Your task to perform on an android device: Show the shopping cart on costco.com. Search for logitech g910 on costco.com, select the first entry, and add it to the cart. Image 0: 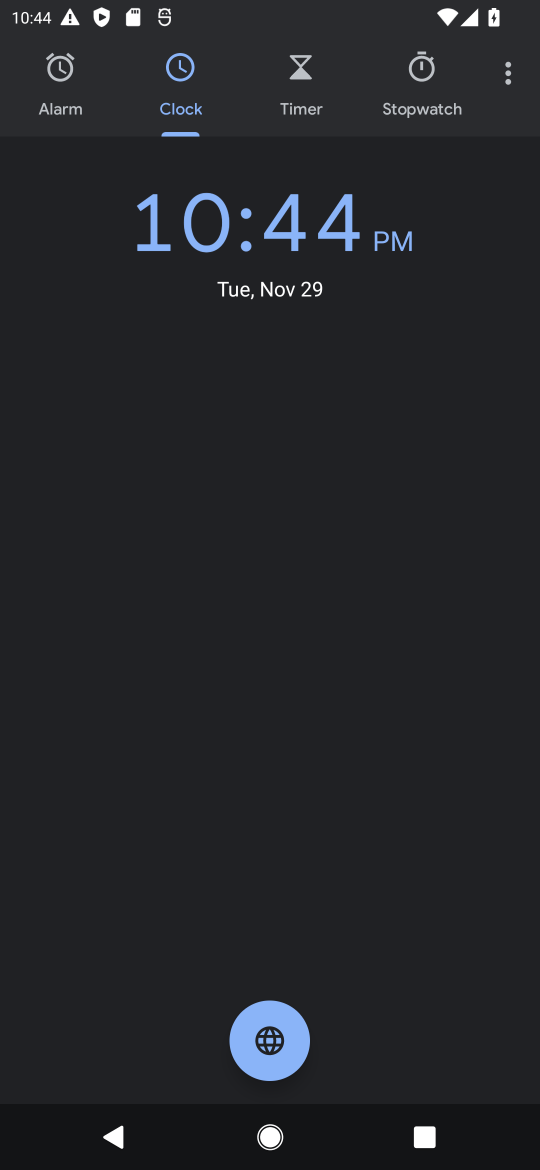
Step 0: press home button
Your task to perform on an android device: Show the shopping cart on costco.com. Search for logitech g910 on costco.com, select the first entry, and add it to the cart. Image 1: 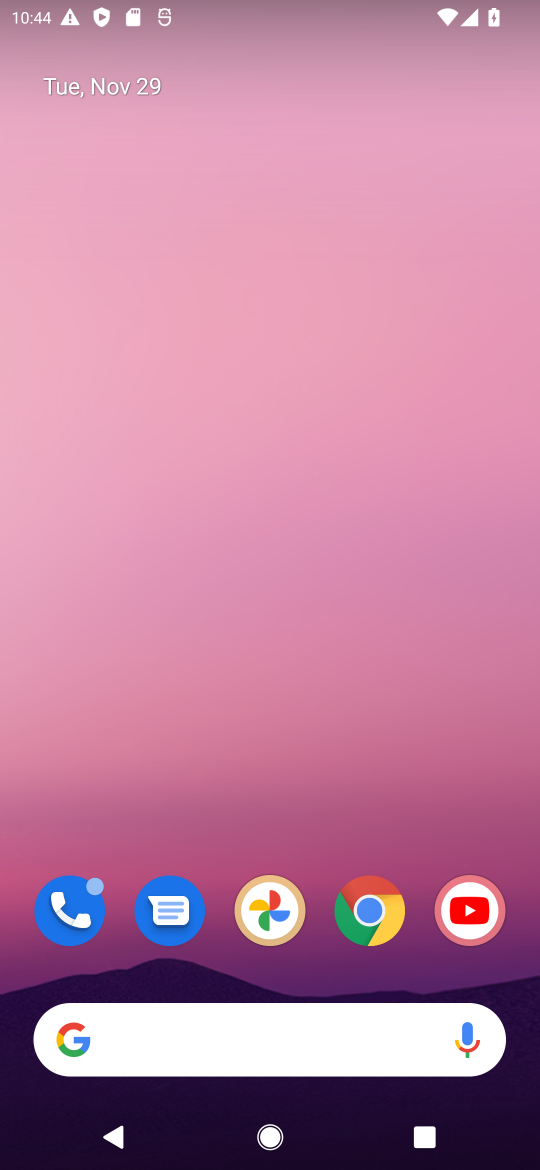
Step 1: click (379, 921)
Your task to perform on an android device: Show the shopping cart on costco.com. Search for logitech g910 on costco.com, select the first entry, and add it to the cart. Image 2: 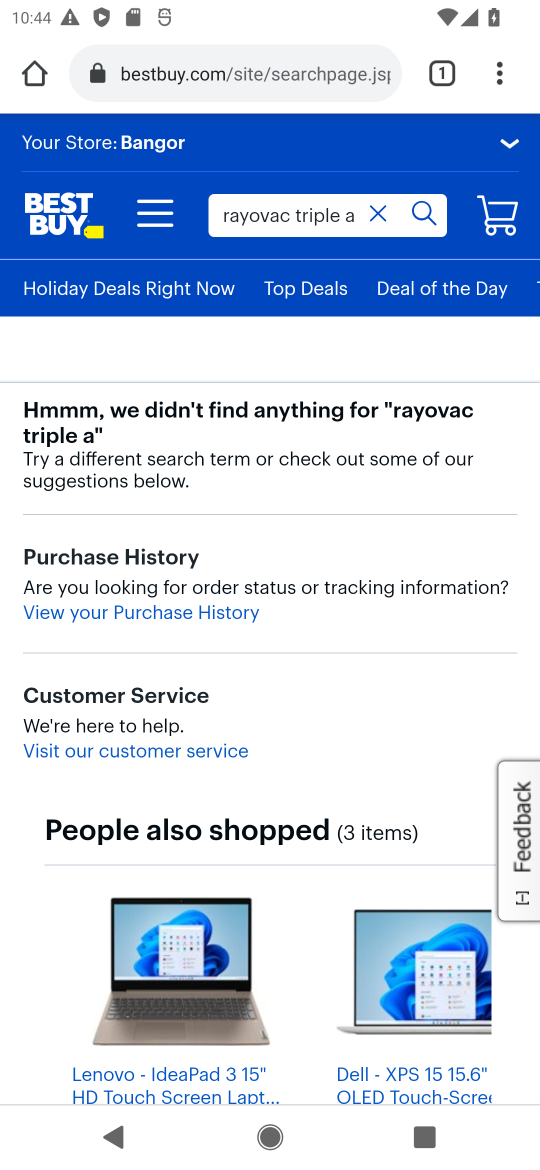
Step 2: click (217, 80)
Your task to perform on an android device: Show the shopping cart on costco.com. Search for logitech g910 on costco.com, select the first entry, and add it to the cart. Image 3: 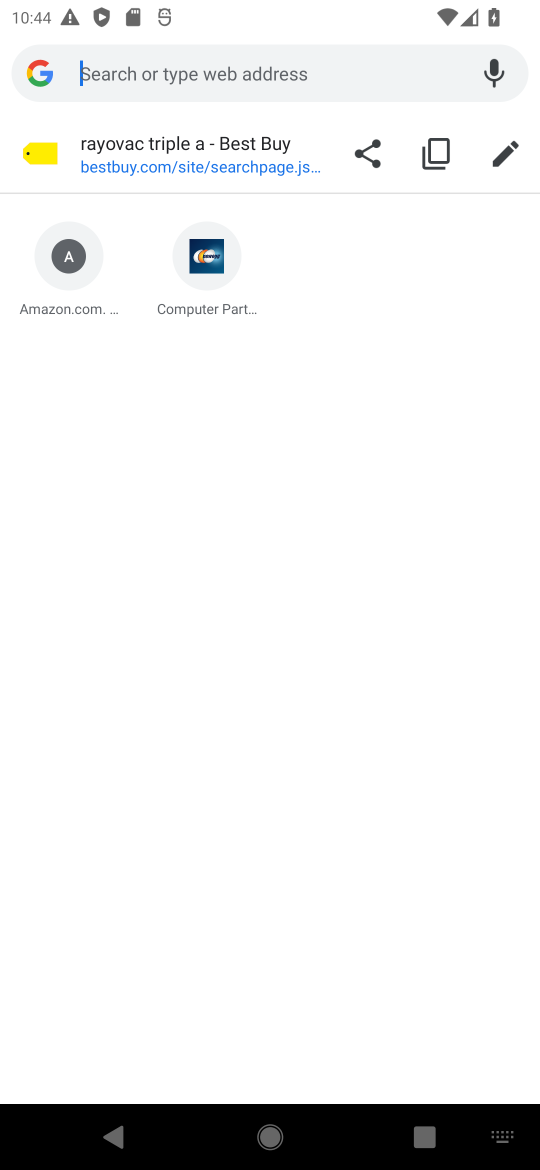
Step 3: type "costco.com"
Your task to perform on an android device: Show the shopping cart on costco.com. Search for logitech g910 on costco.com, select the first entry, and add it to the cart. Image 4: 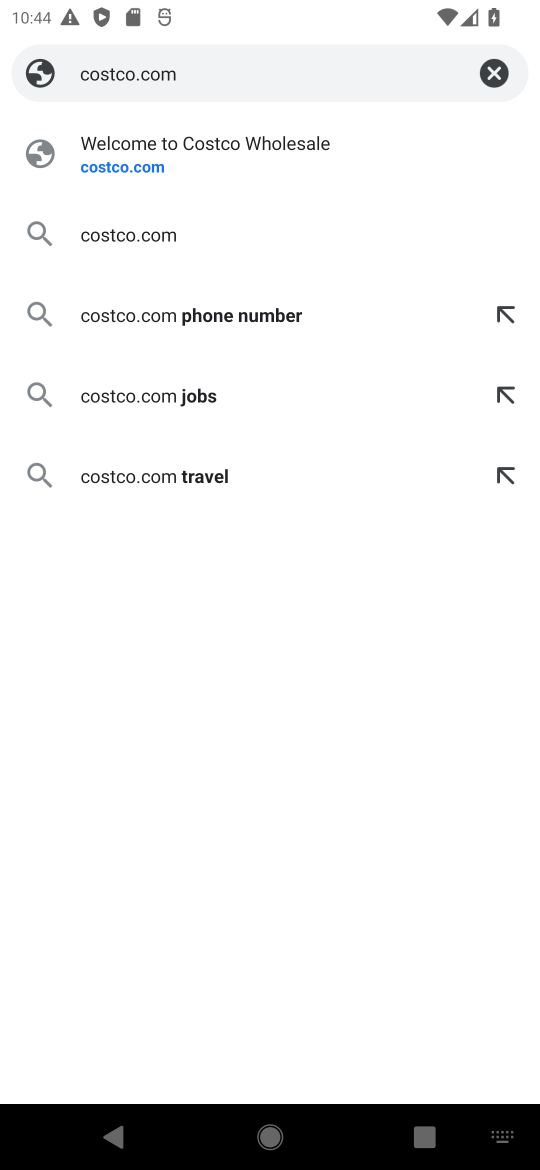
Step 4: click (146, 164)
Your task to perform on an android device: Show the shopping cart on costco.com. Search for logitech g910 on costco.com, select the first entry, and add it to the cart. Image 5: 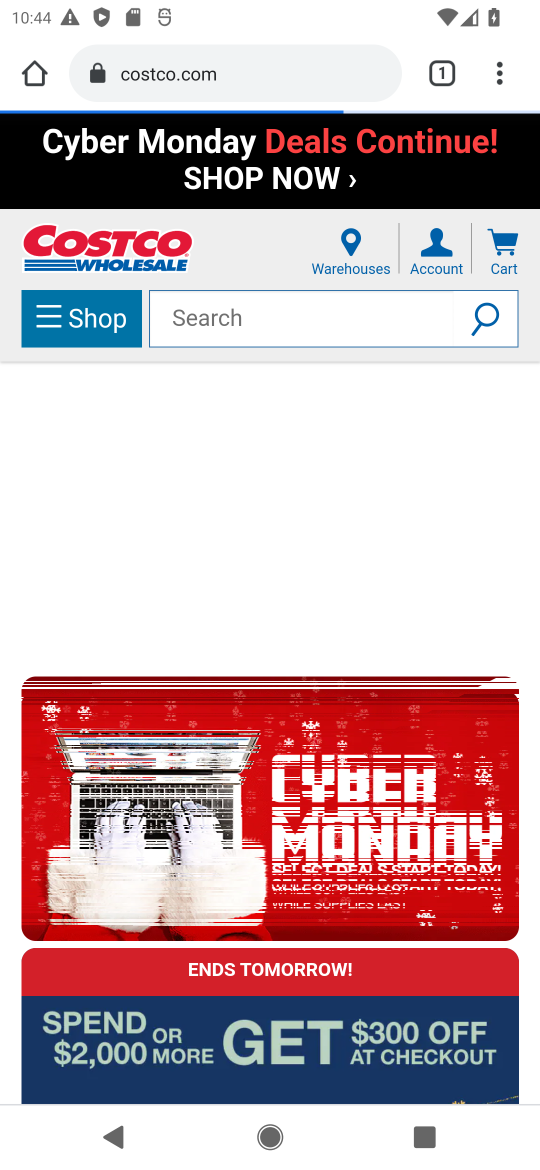
Step 5: click (498, 248)
Your task to perform on an android device: Show the shopping cart on costco.com. Search for logitech g910 on costco.com, select the first entry, and add it to the cart. Image 6: 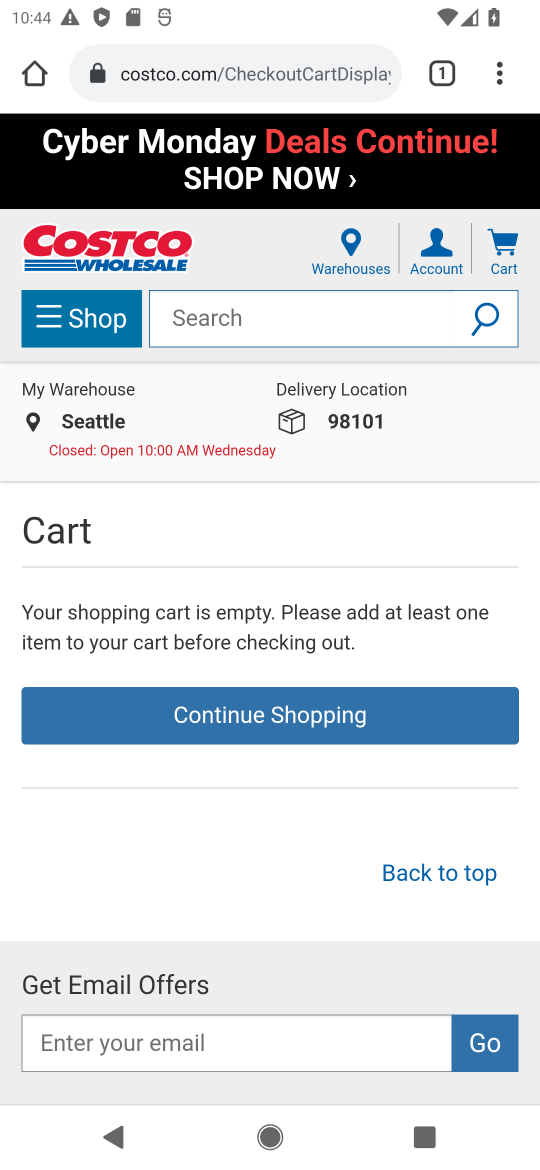
Step 6: click (206, 316)
Your task to perform on an android device: Show the shopping cart on costco.com. Search for logitech g910 on costco.com, select the first entry, and add it to the cart. Image 7: 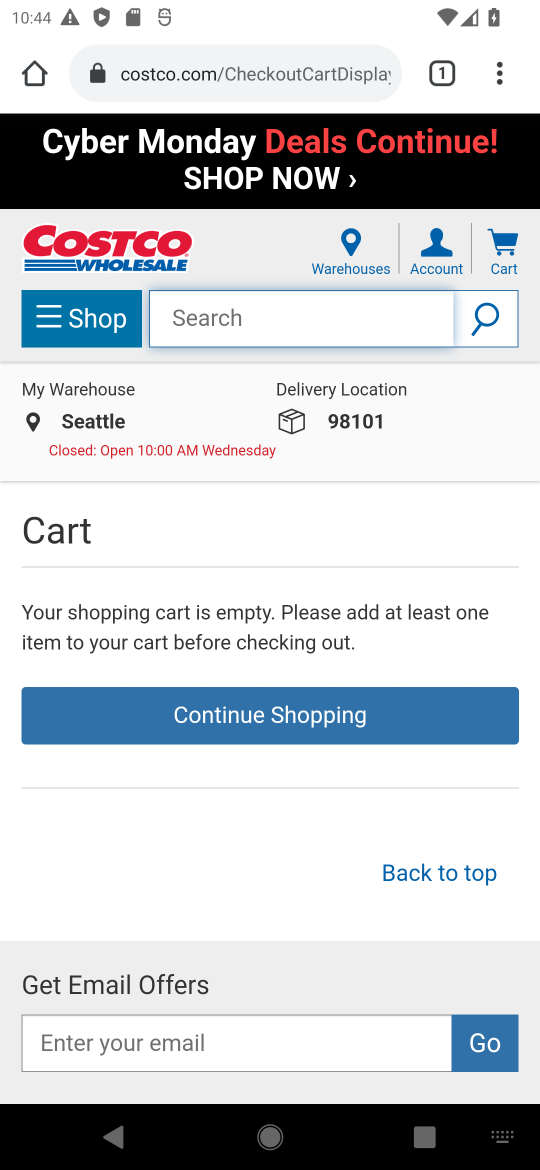
Step 7: type "logitech g910"
Your task to perform on an android device: Show the shopping cart on costco.com. Search for logitech g910 on costco.com, select the first entry, and add it to the cart. Image 8: 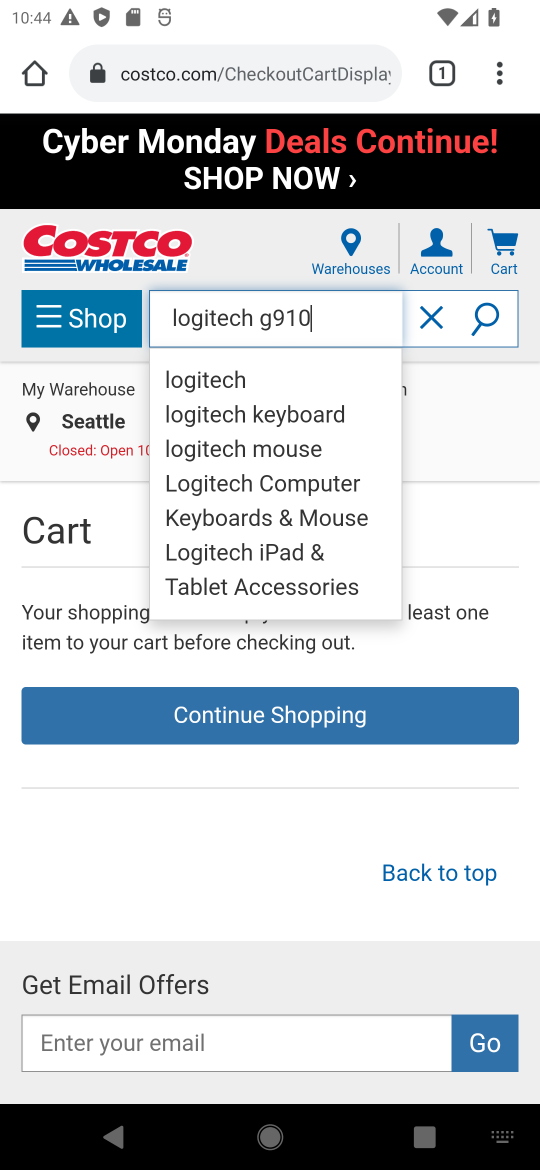
Step 8: click (490, 327)
Your task to perform on an android device: Show the shopping cart on costco.com. Search for logitech g910 on costco.com, select the first entry, and add it to the cart. Image 9: 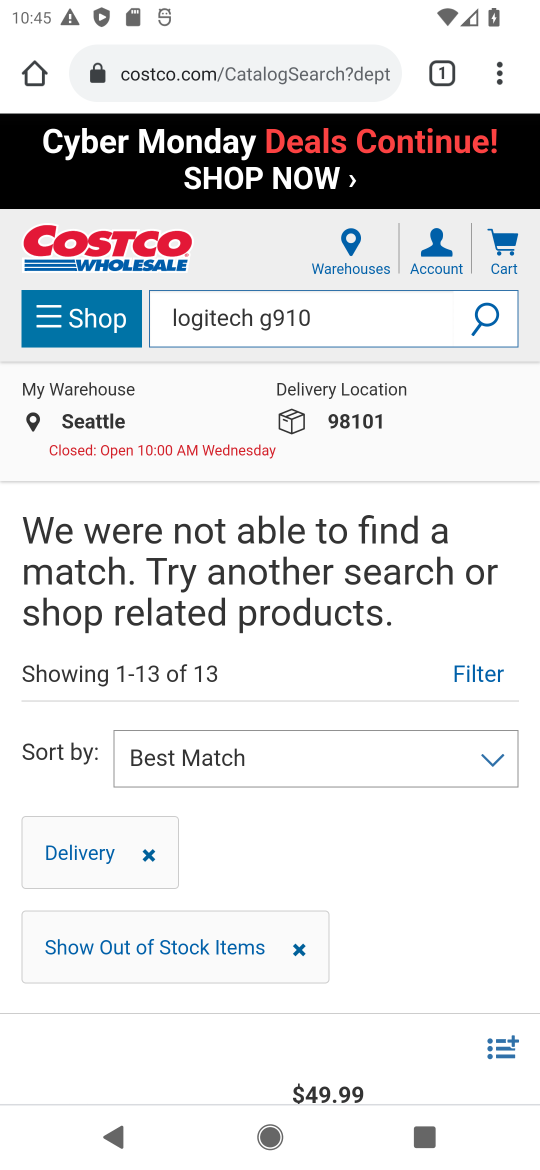
Step 9: task complete